Your task to perform on an android device: open app "WhatsApp Messenger" Image 0: 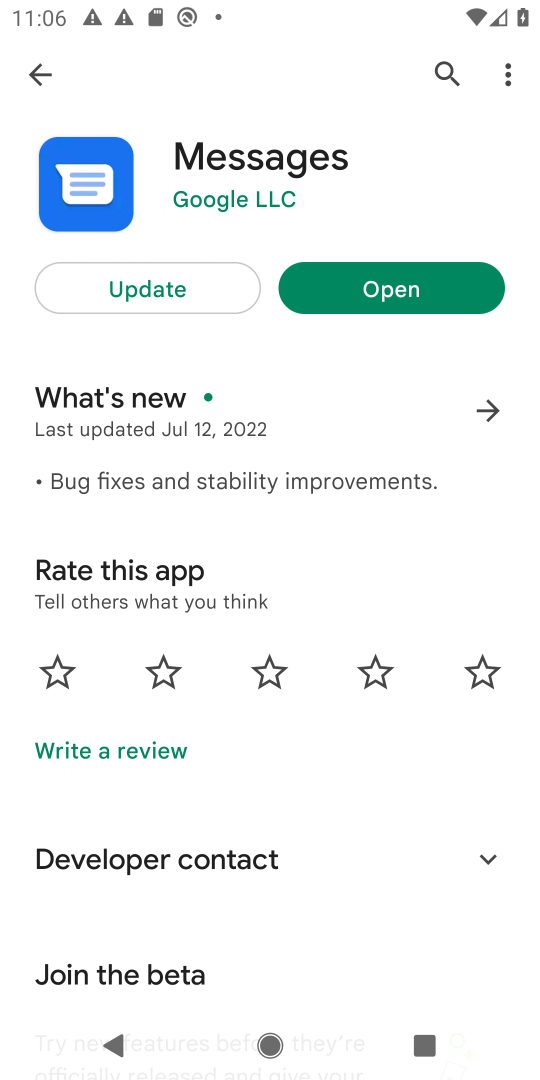
Step 0: drag from (242, 272) to (289, 1052)
Your task to perform on an android device: open app "WhatsApp Messenger" Image 1: 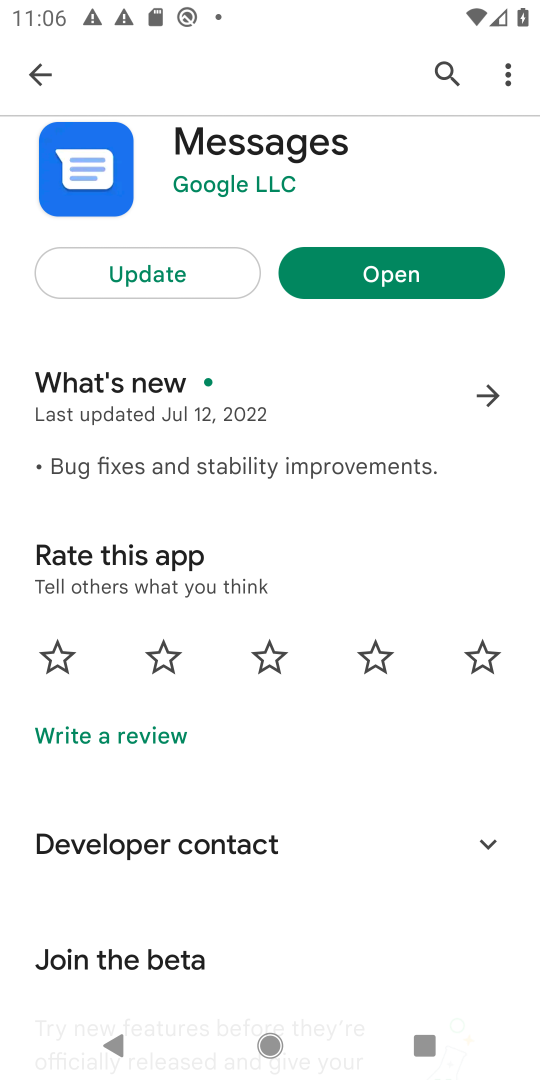
Step 1: drag from (318, 309) to (454, 1078)
Your task to perform on an android device: open app "WhatsApp Messenger" Image 2: 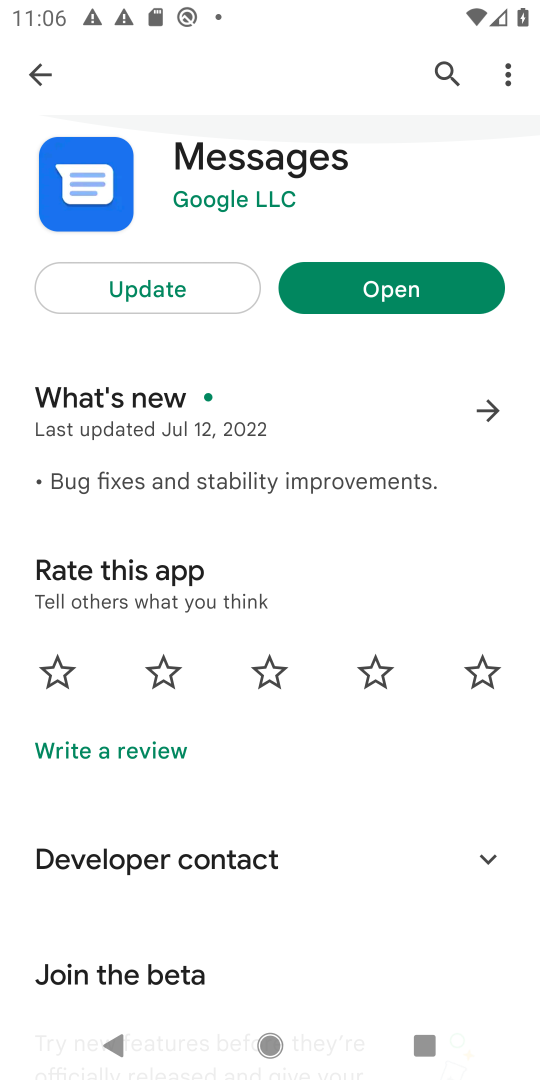
Step 2: drag from (293, 203) to (422, 966)
Your task to perform on an android device: open app "WhatsApp Messenger" Image 3: 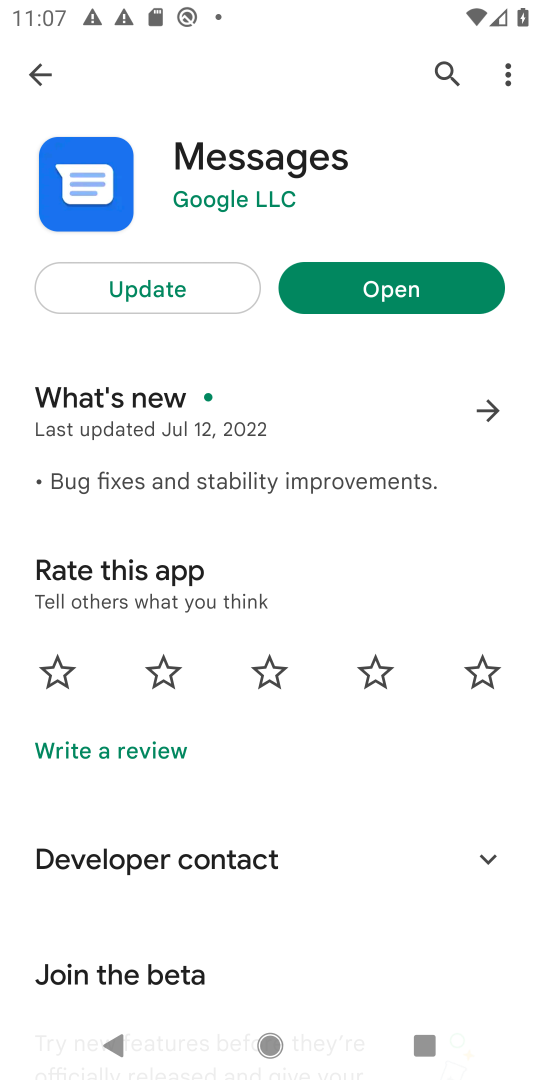
Step 3: drag from (306, 174) to (477, 1077)
Your task to perform on an android device: open app "WhatsApp Messenger" Image 4: 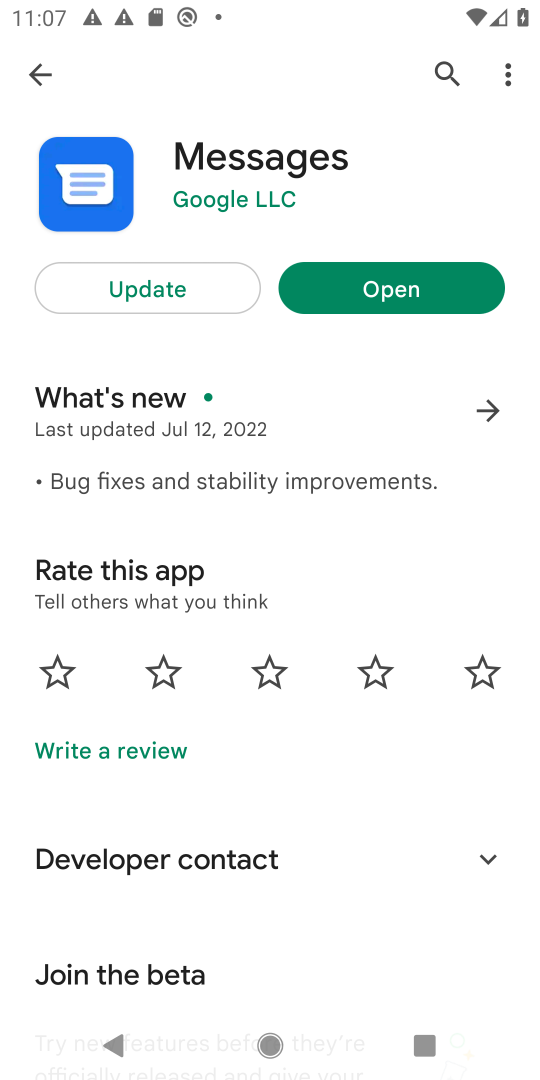
Step 4: click (432, 59)
Your task to perform on an android device: open app "WhatsApp Messenger" Image 5: 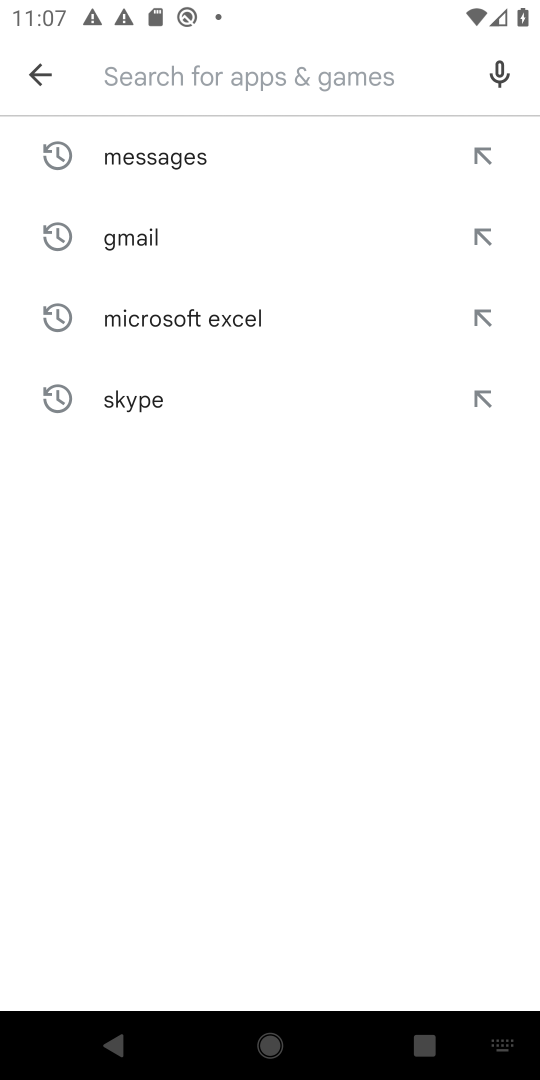
Step 5: type "WhatsApp Messenger"
Your task to perform on an android device: open app "WhatsApp Messenger" Image 6: 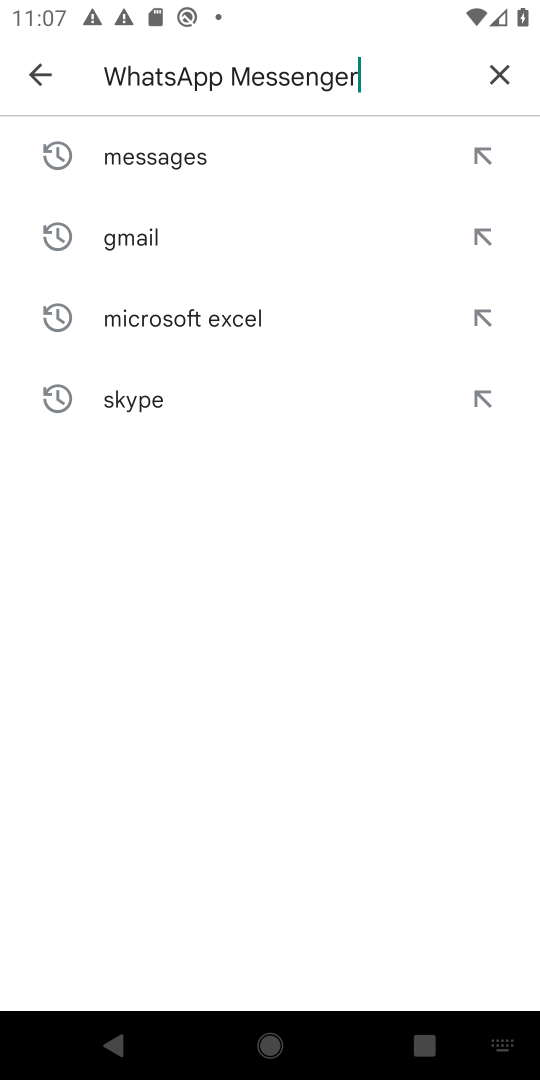
Step 6: type ""
Your task to perform on an android device: open app "WhatsApp Messenger" Image 7: 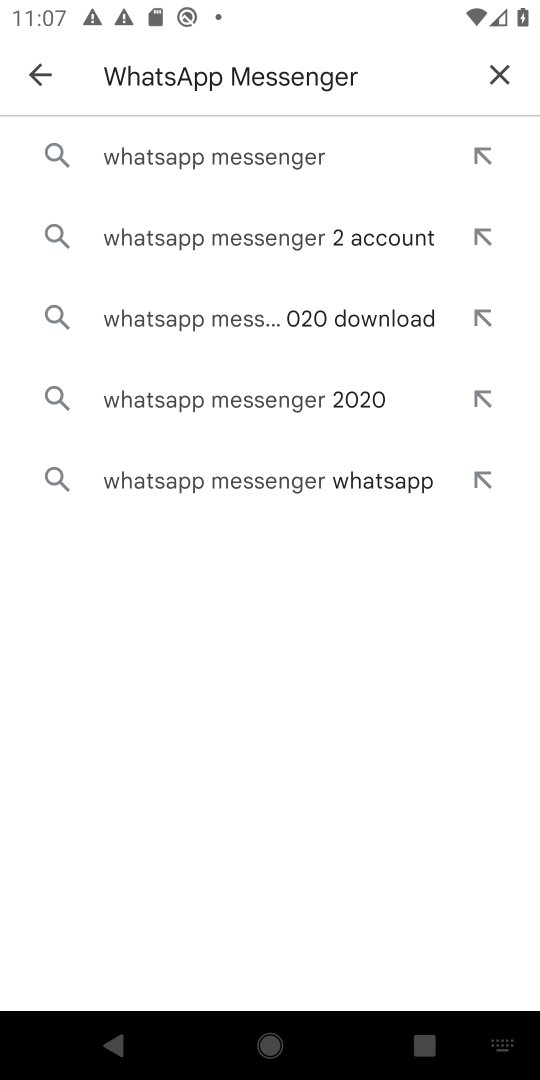
Step 7: click (241, 147)
Your task to perform on an android device: open app "WhatsApp Messenger" Image 8: 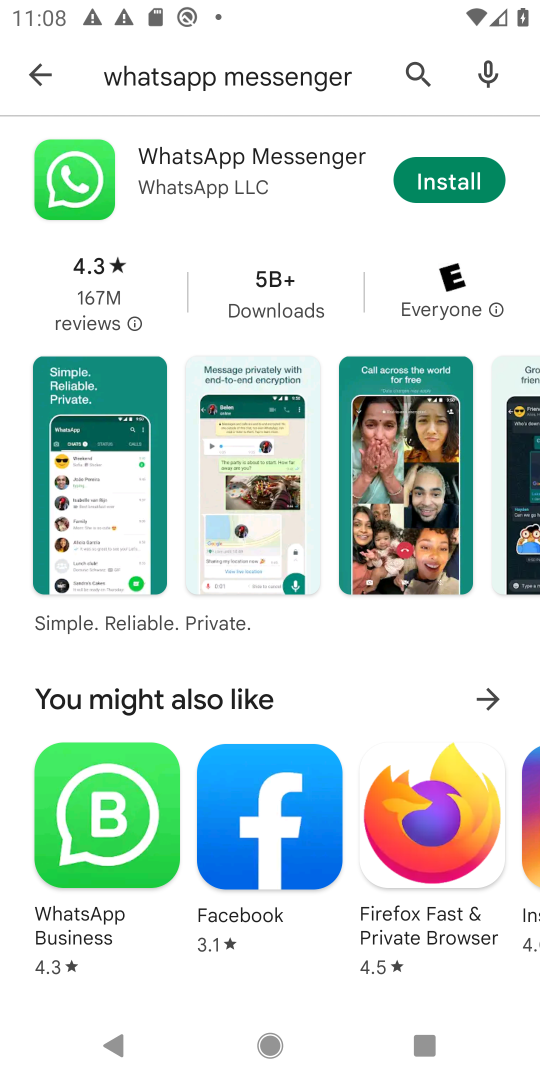
Step 8: drag from (277, 707) to (432, 1076)
Your task to perform on an android device: open app "WhatsApp Messenger" Image 9: 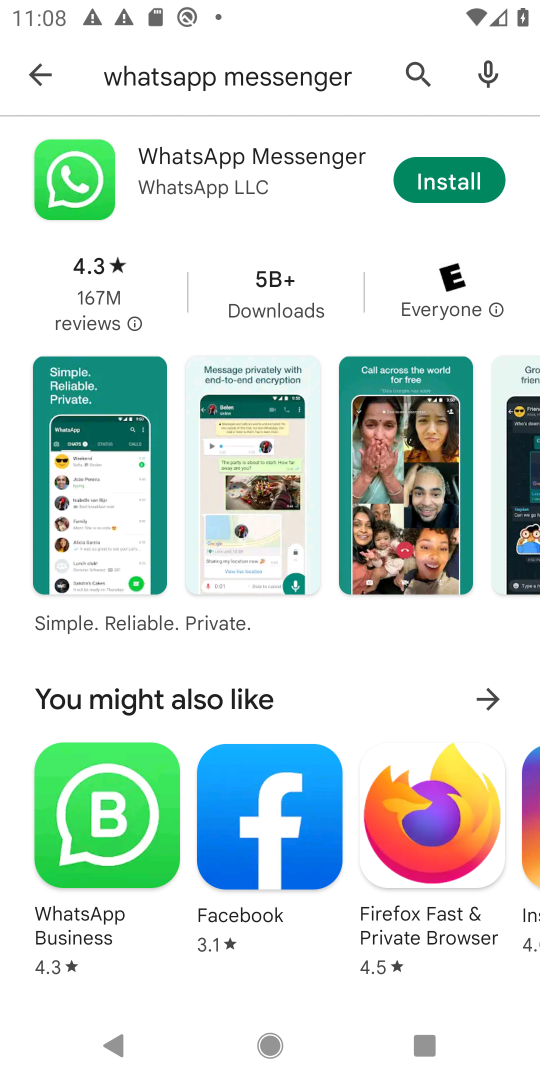
Step 9: click (141, 136)
Your task to perform on an android device: open app "WhatsApp Messenger" Image 10: 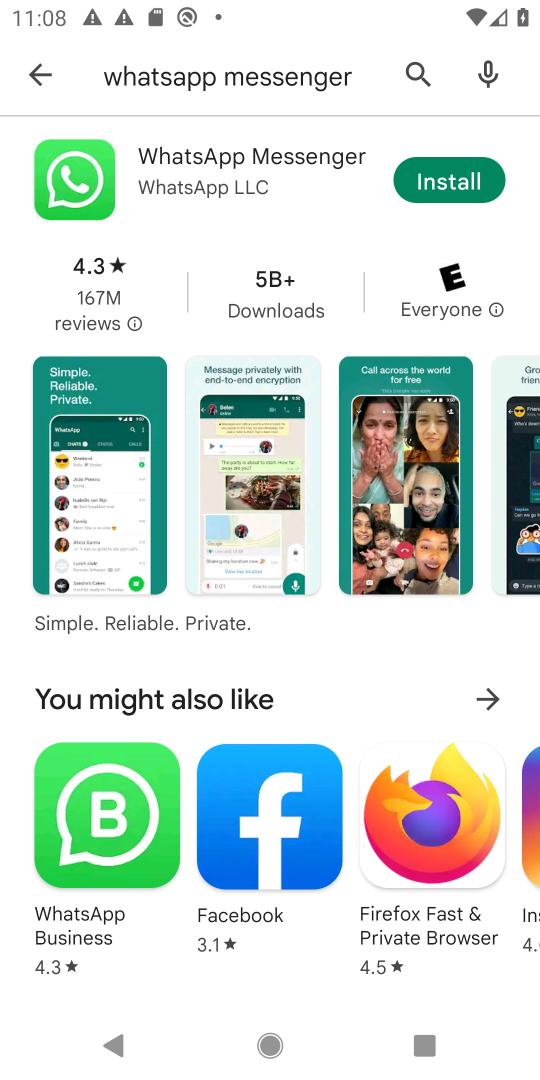
Step 10: click (175, 155)
Your task to perform on an android device: open app "WhatsApp Messenger" Image 11: 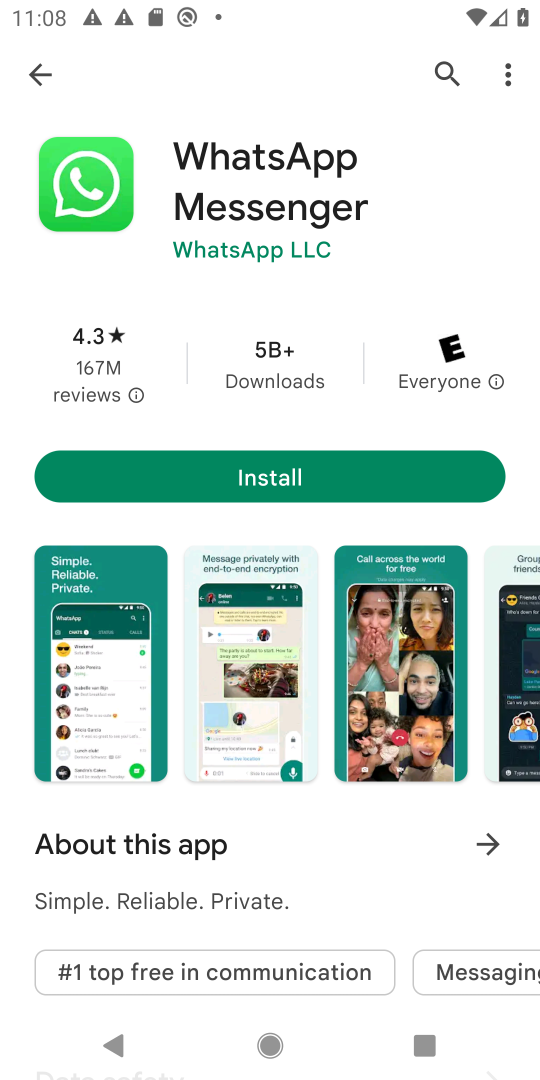
Step 11: task complete